Your task to perform on an android device: change the clock display to analog Image 0: 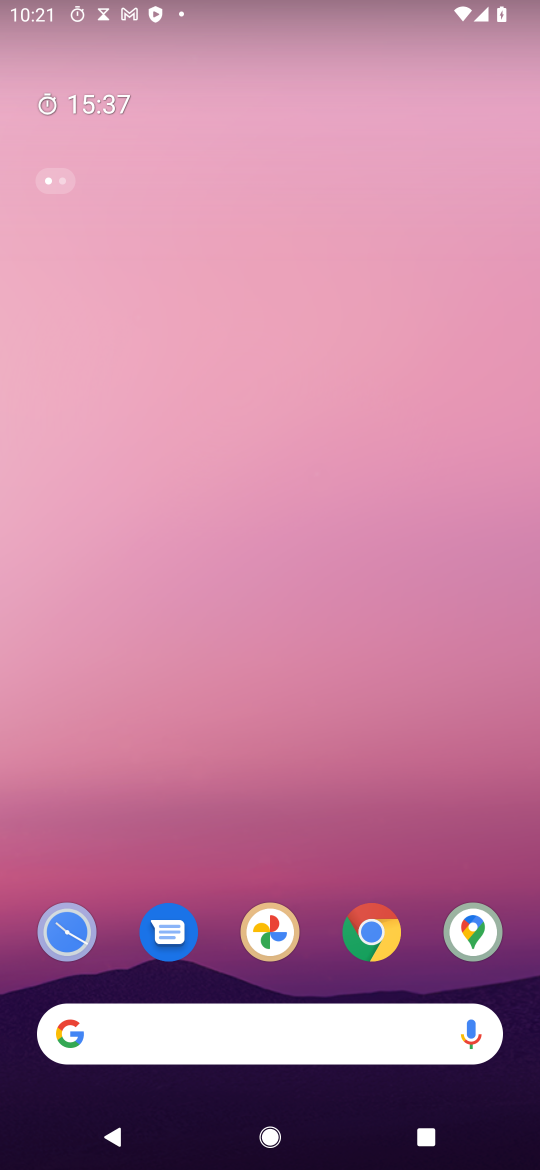
Step 0: drag from (324, 839) to (316, 25)
Your task to perform on an android device: change the clock display to analog Image 1: 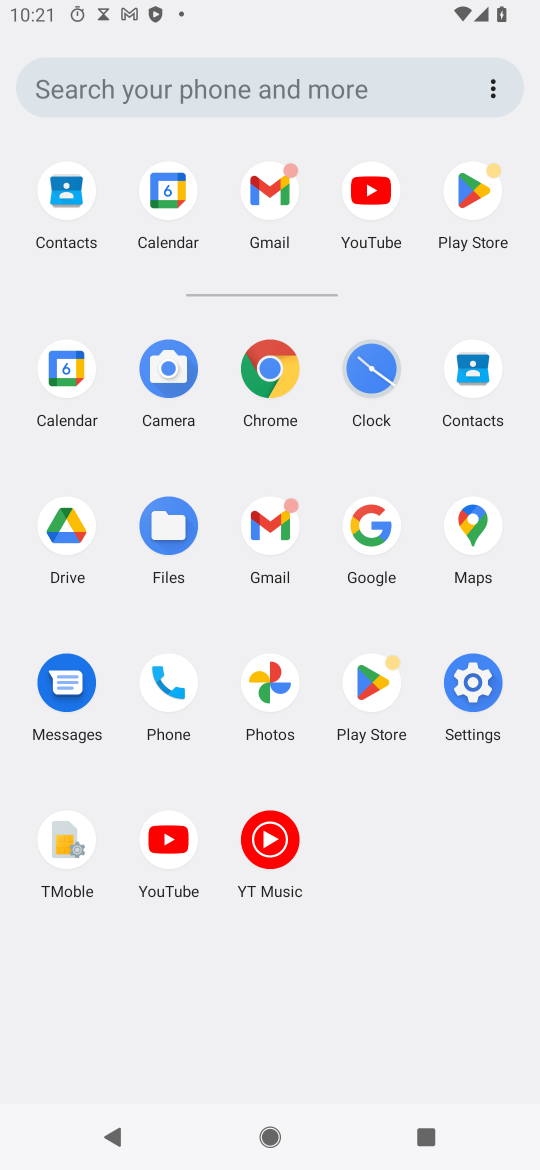
Step 1: click (378, 357)
Your task to perform on an android device: change the clock display to analog Image 2: 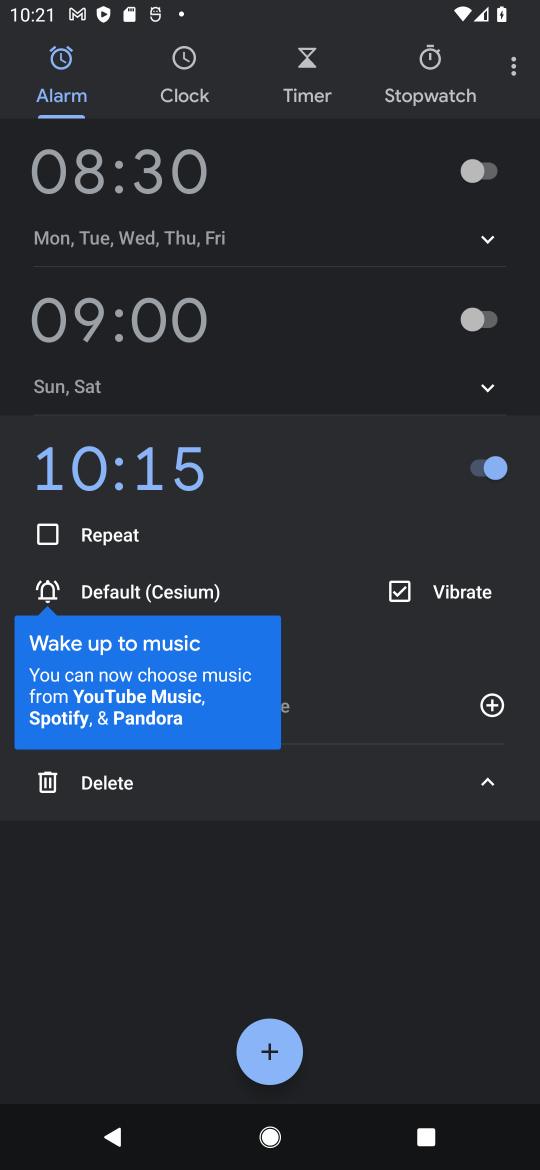
Step 2: click (512, 79)
Your task to perform on an android device: change the clock display to analog Image 3: 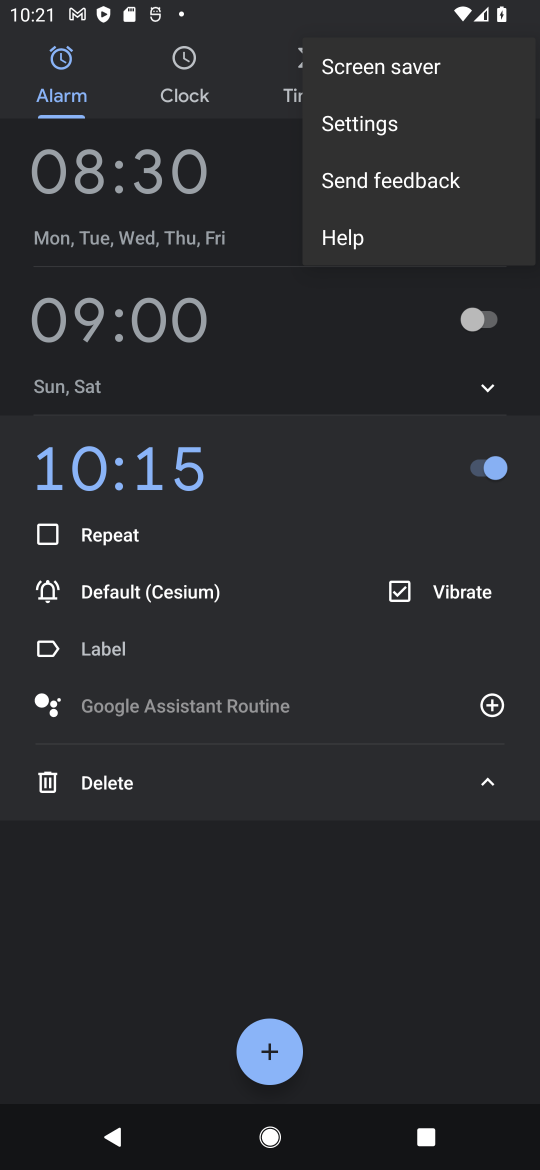
Step 3: click (405, 136)
Your task to perform on an android device: change the clock display to analog Image 4: 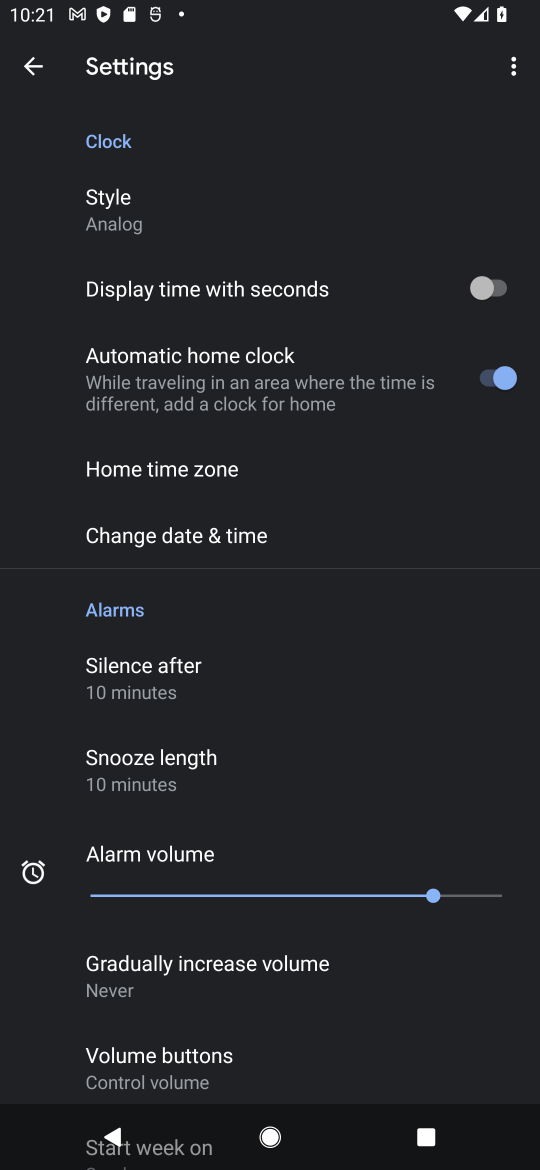
Step 4: click (206, 225)
Your task to perform on an android device: change the clock display to analog Image 5: 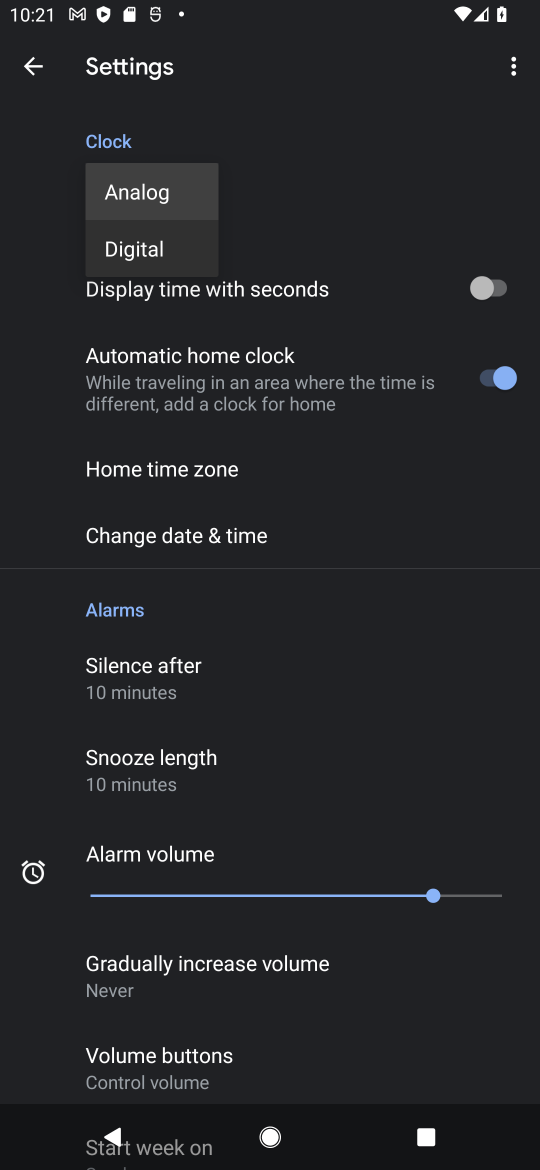
Step 5: click (192, 221)
Your task to perform on an android device: change the clock display to analog Image 6: 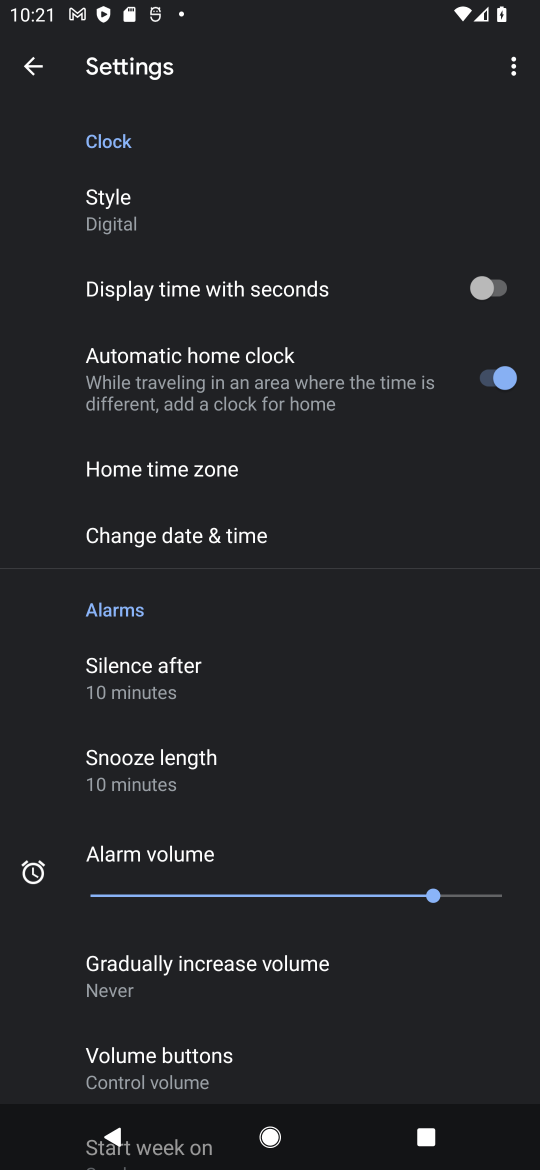
Step 6: task complete